Your task to perform on an android device: turn pop-ups on in chrome Image 0: 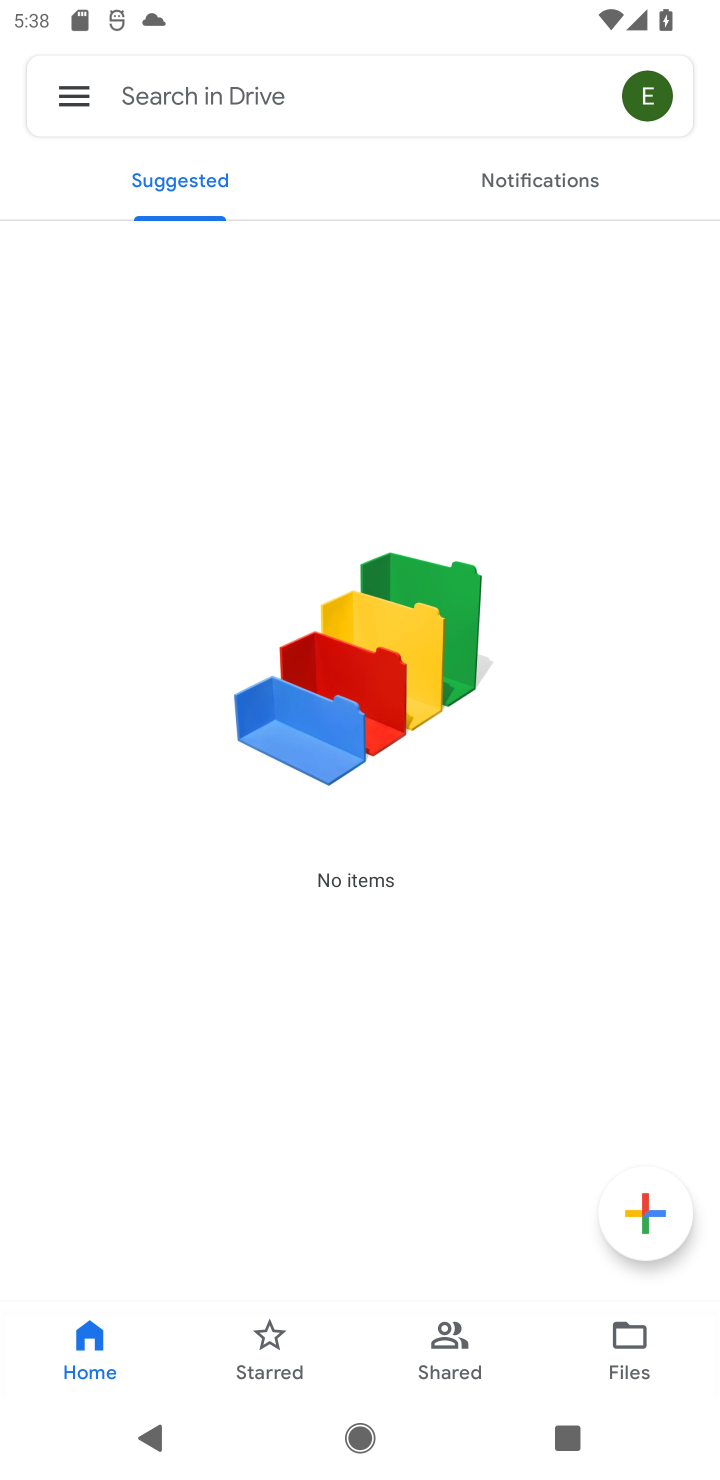
Step 0: press home button
Your task to perform on an android device: turn pop-ups on in chrome Image 1: 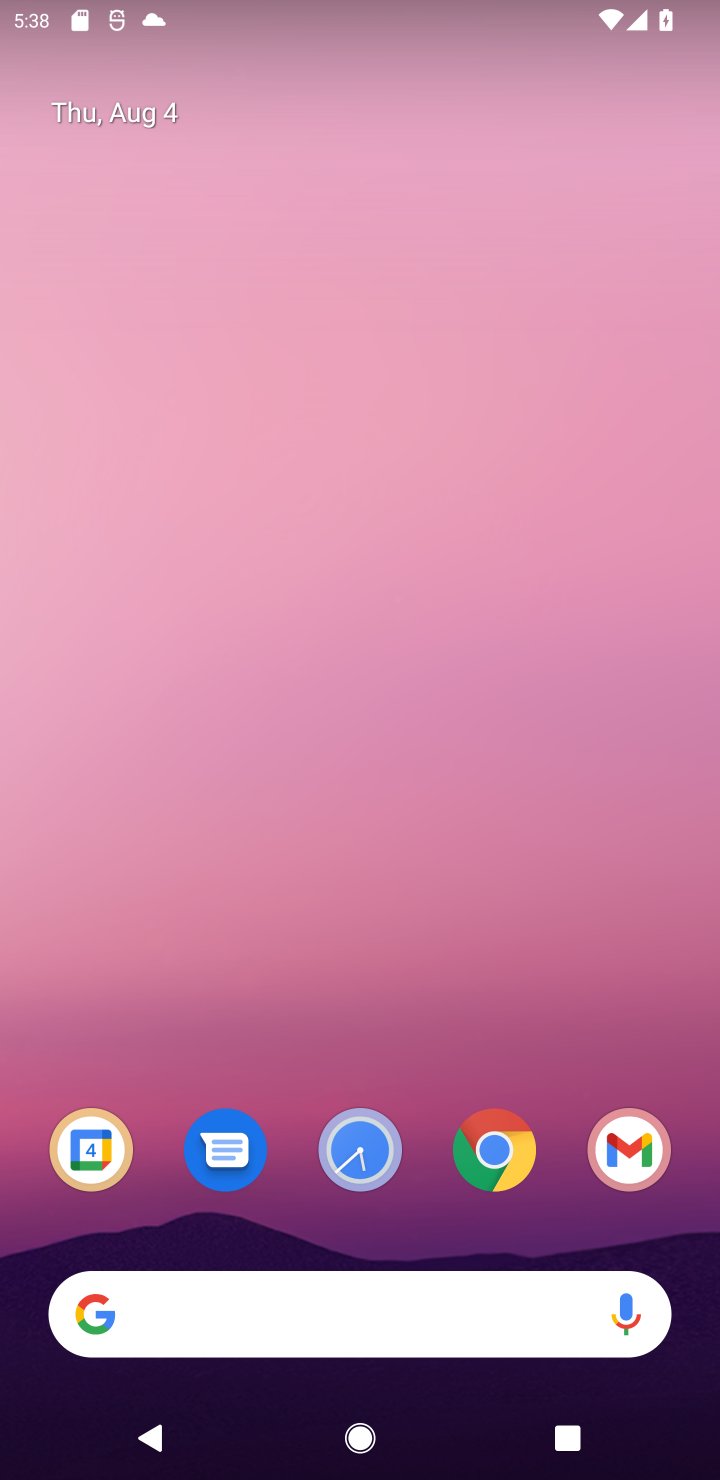
Step 1: drag from (321, 1158) to (374, 3)
Your task to perform on an android device: turn pop-ups on in chrome Image 2: 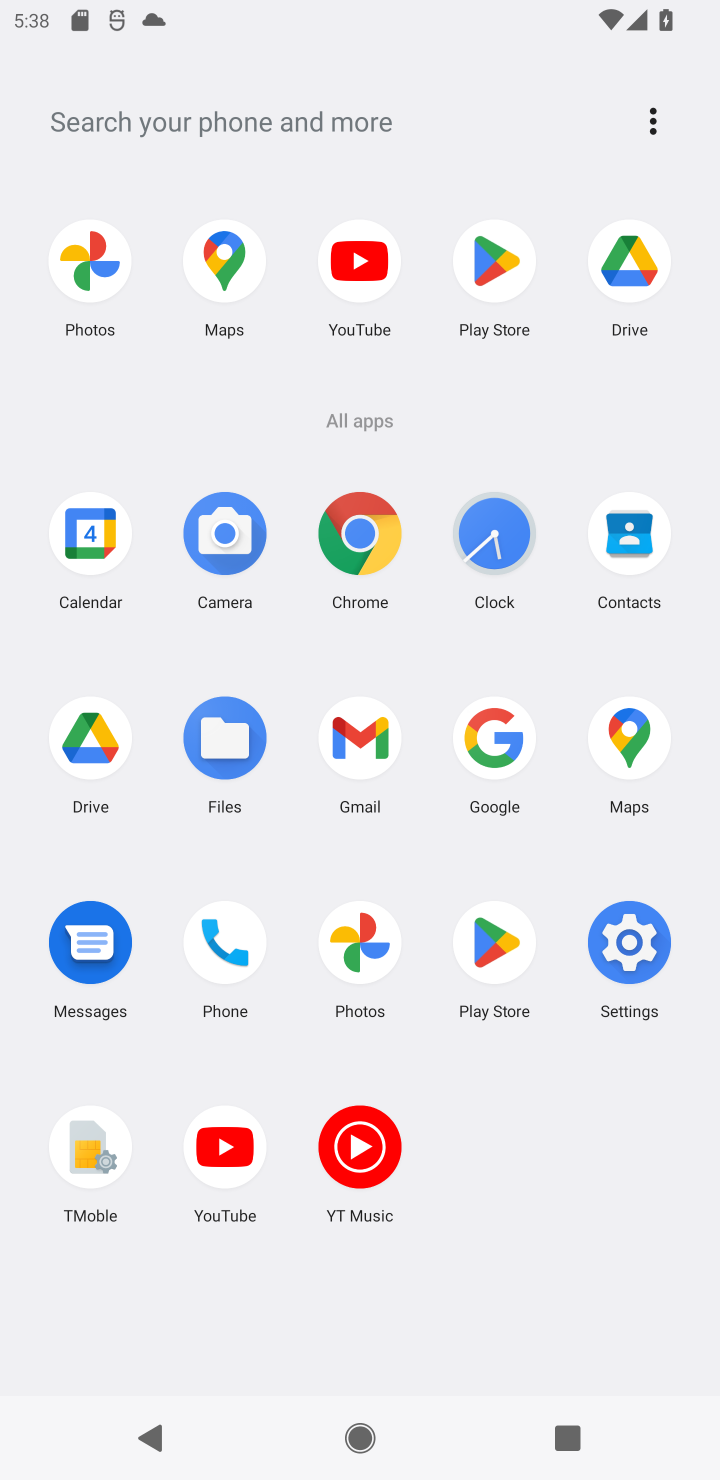
Step 2: click (354, 532)
Your task to perform on an android device: turn pop-ups on in chrome Image 3: 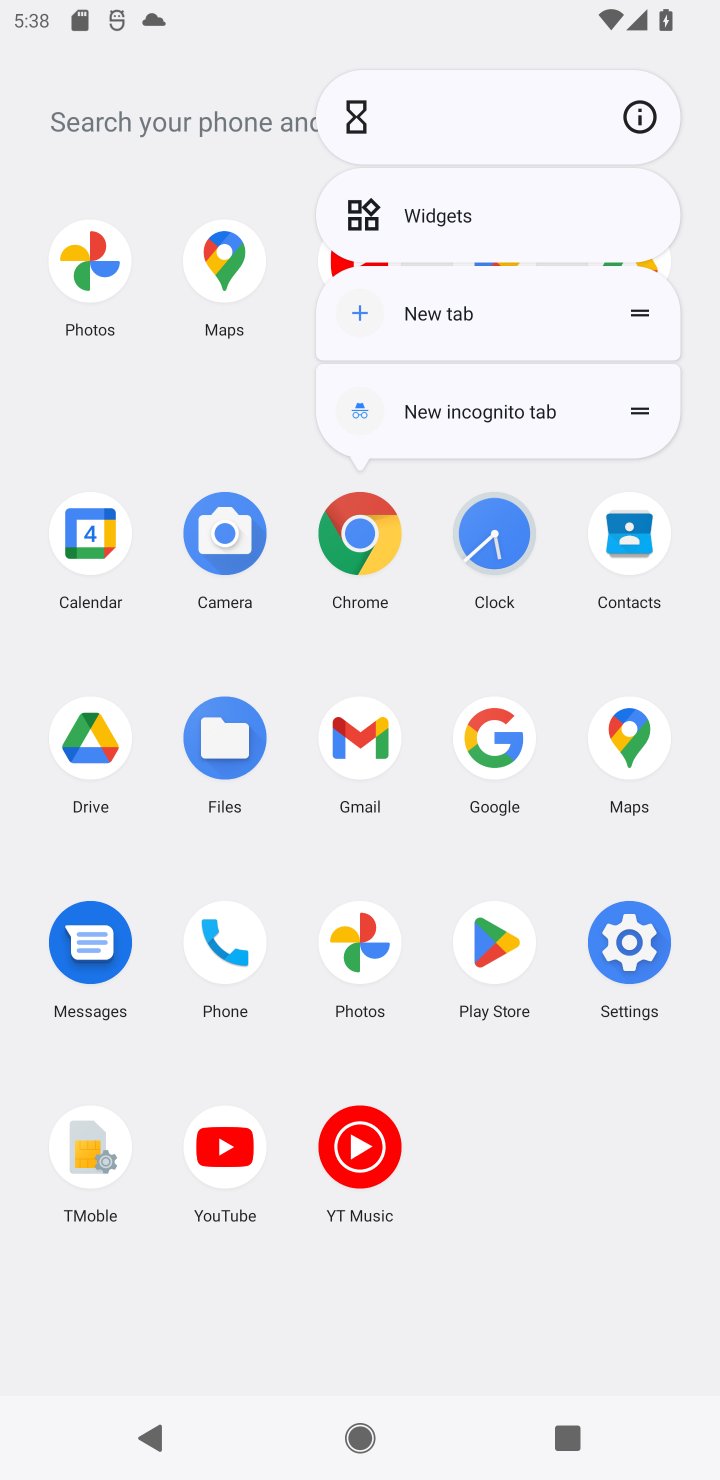
Step 3: click (363, 572)
Your task to perform on an android device: turn pop-ups on in chrome Image 4: 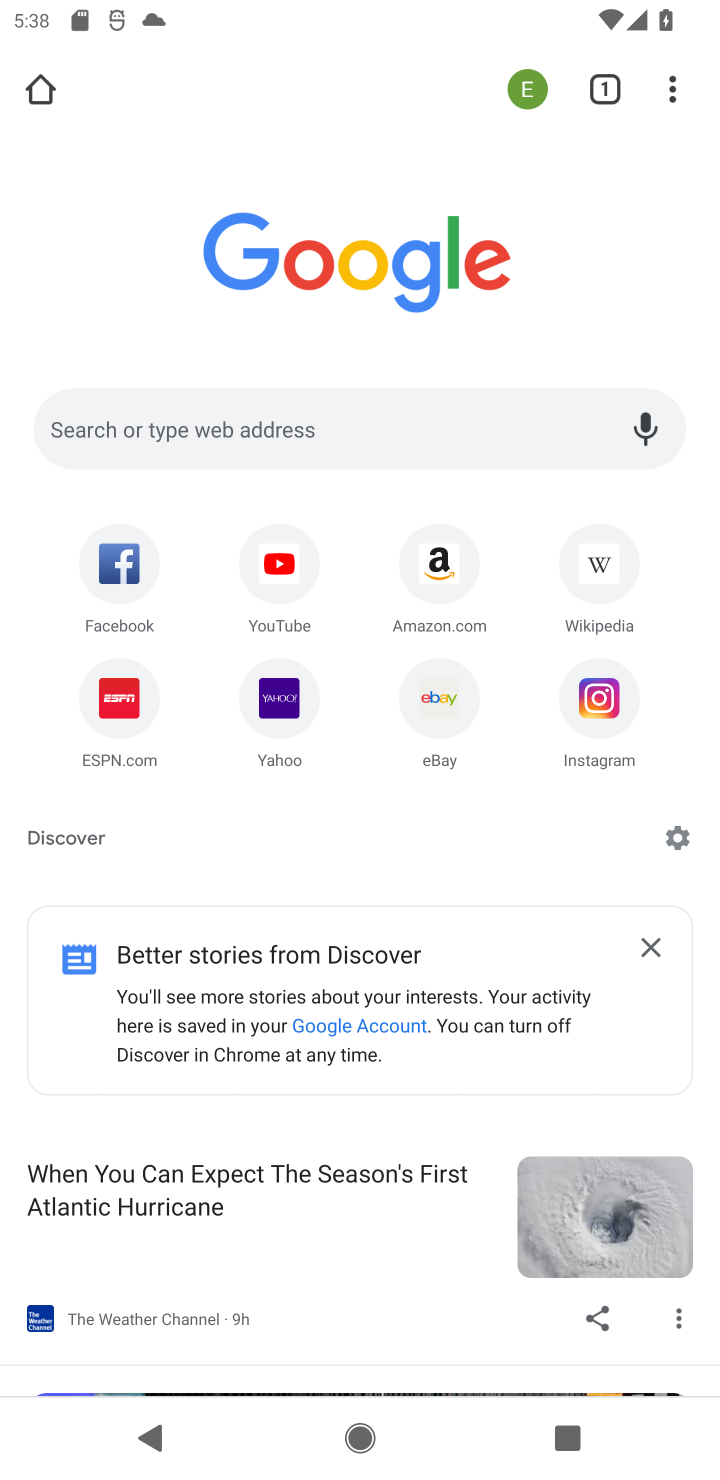
Step 4: click (674, 93)
Your task to perform on an android device: turn pop-ups on in chrome Image 5: 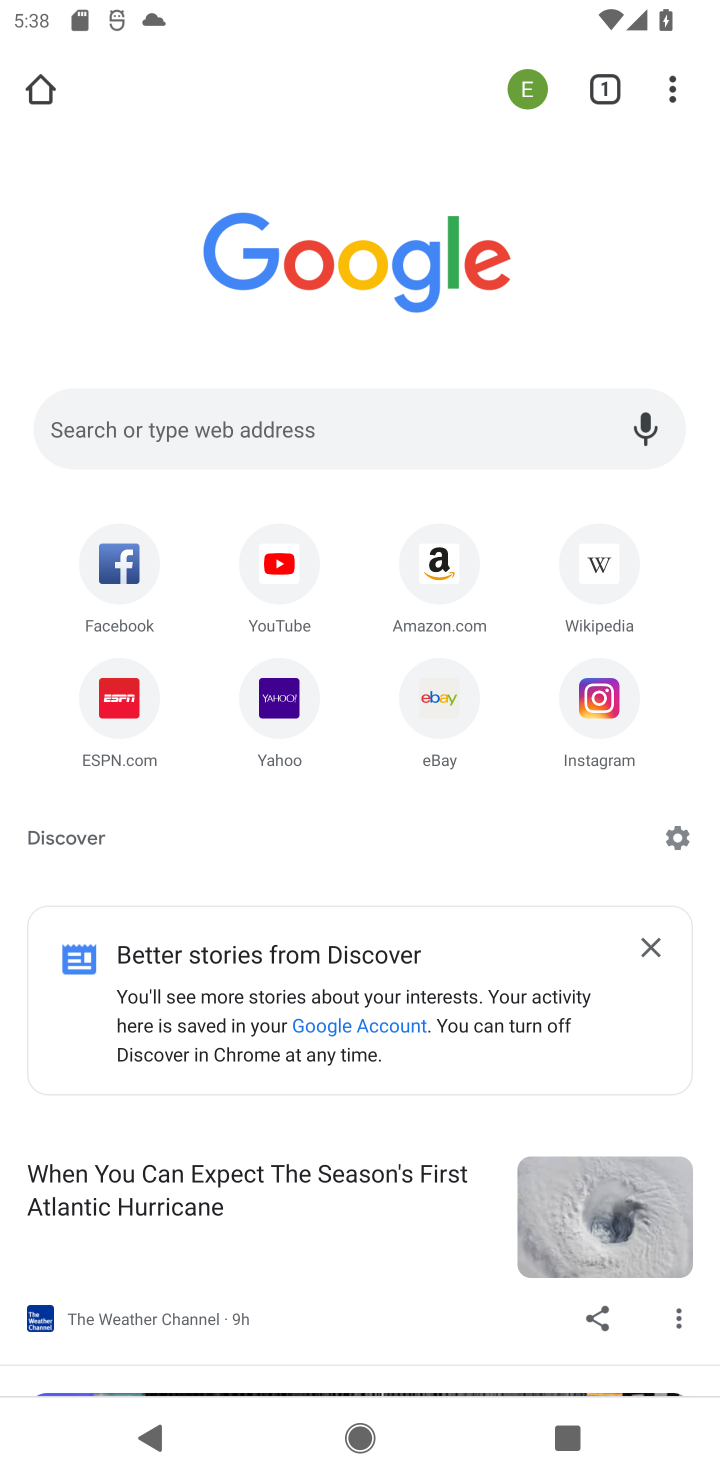
Step 5: click (673, 66)
Your task to perform on an android device: turn pop-ups on in chrome Image 6: 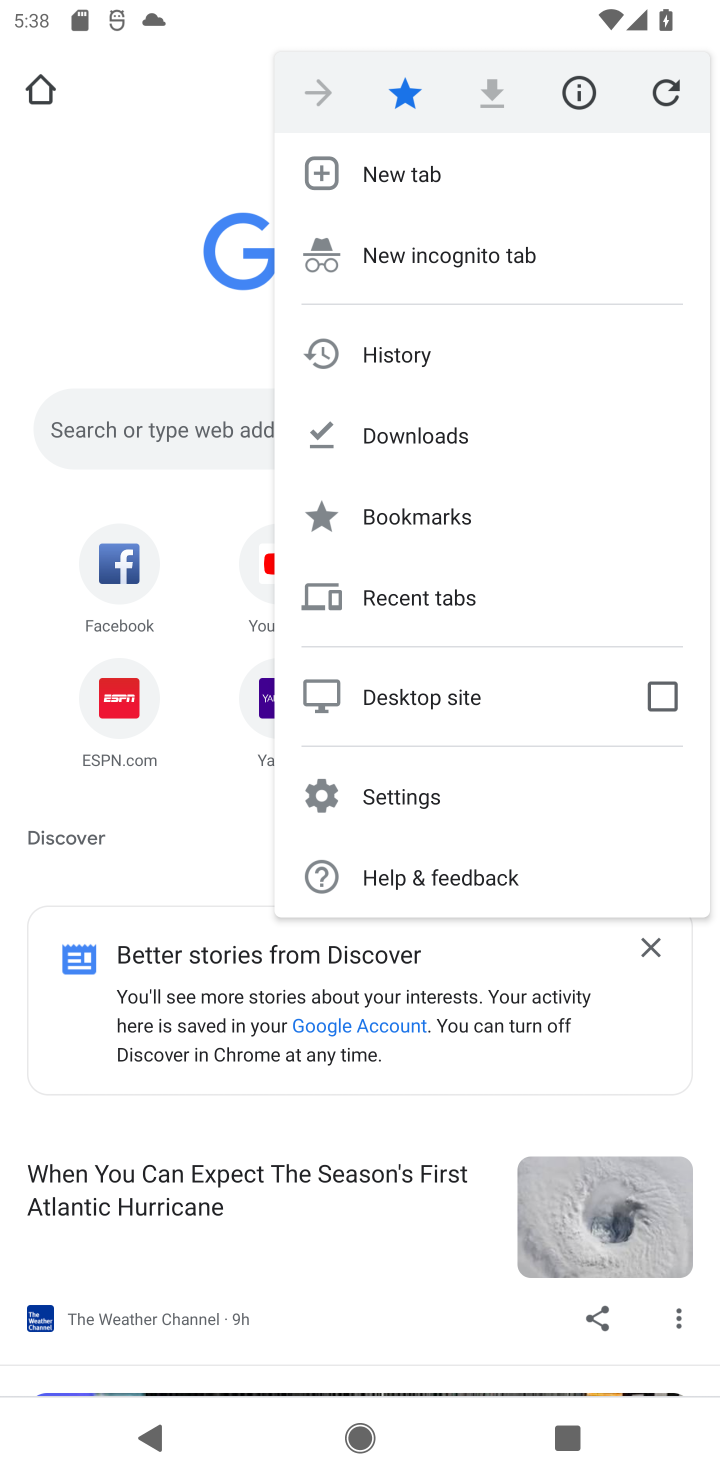
Step 6: click (406, 798)
Your task to perform on an android device: turn pop-ups on in chrome Image 7: 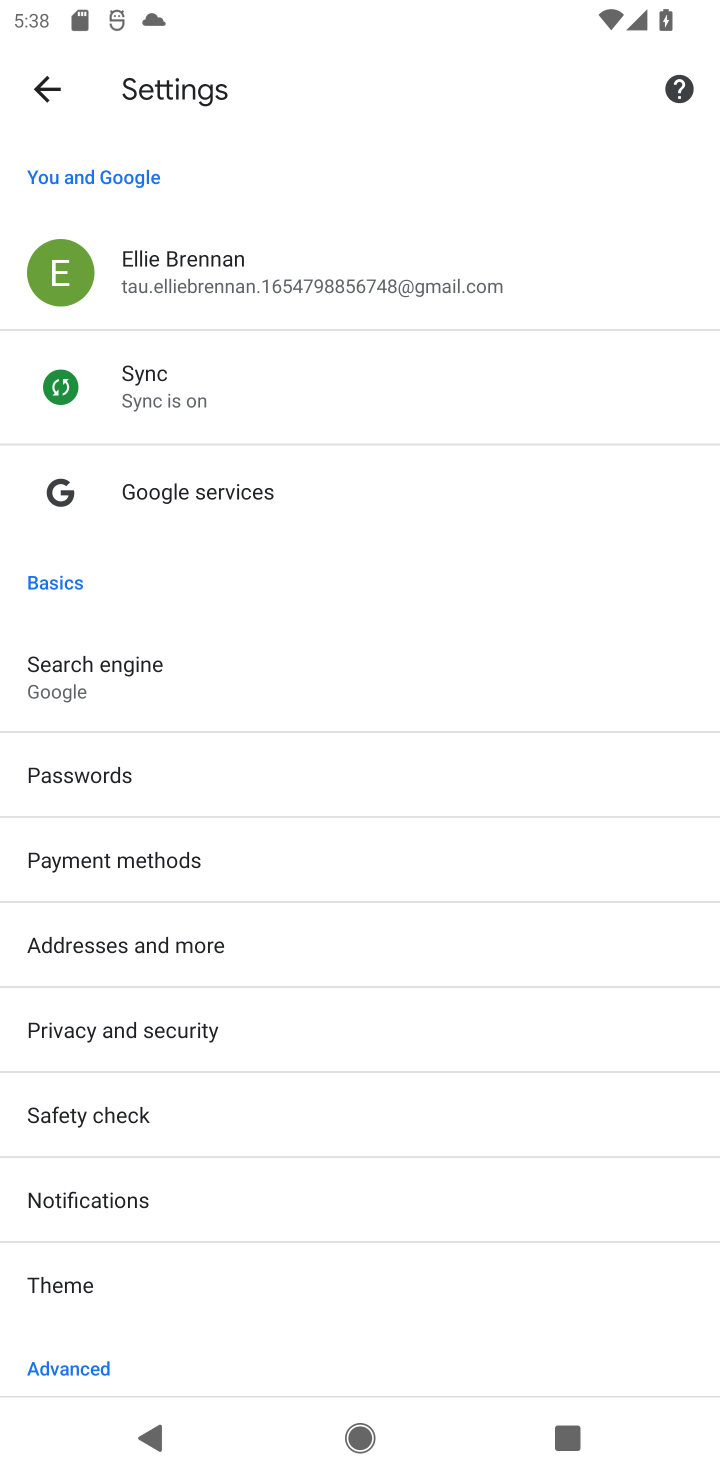
Step 7: drag from (195, 1178) to (229, 527)
Your task to perform on an android device: turn pop-ups on in chrome Image 8: 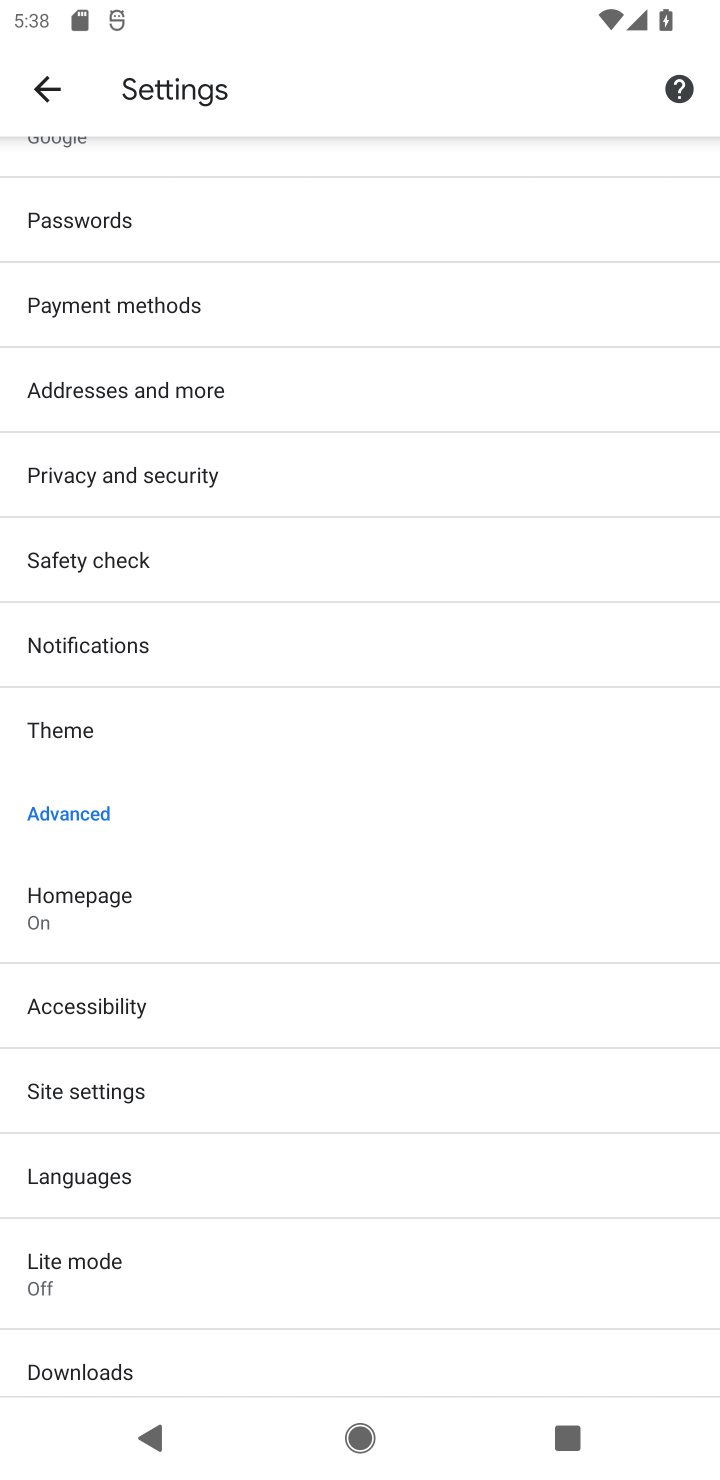
Step 8: click (134, 1092)
Your task to perform on an android device: turn pop-ups on in chrome Image 9: 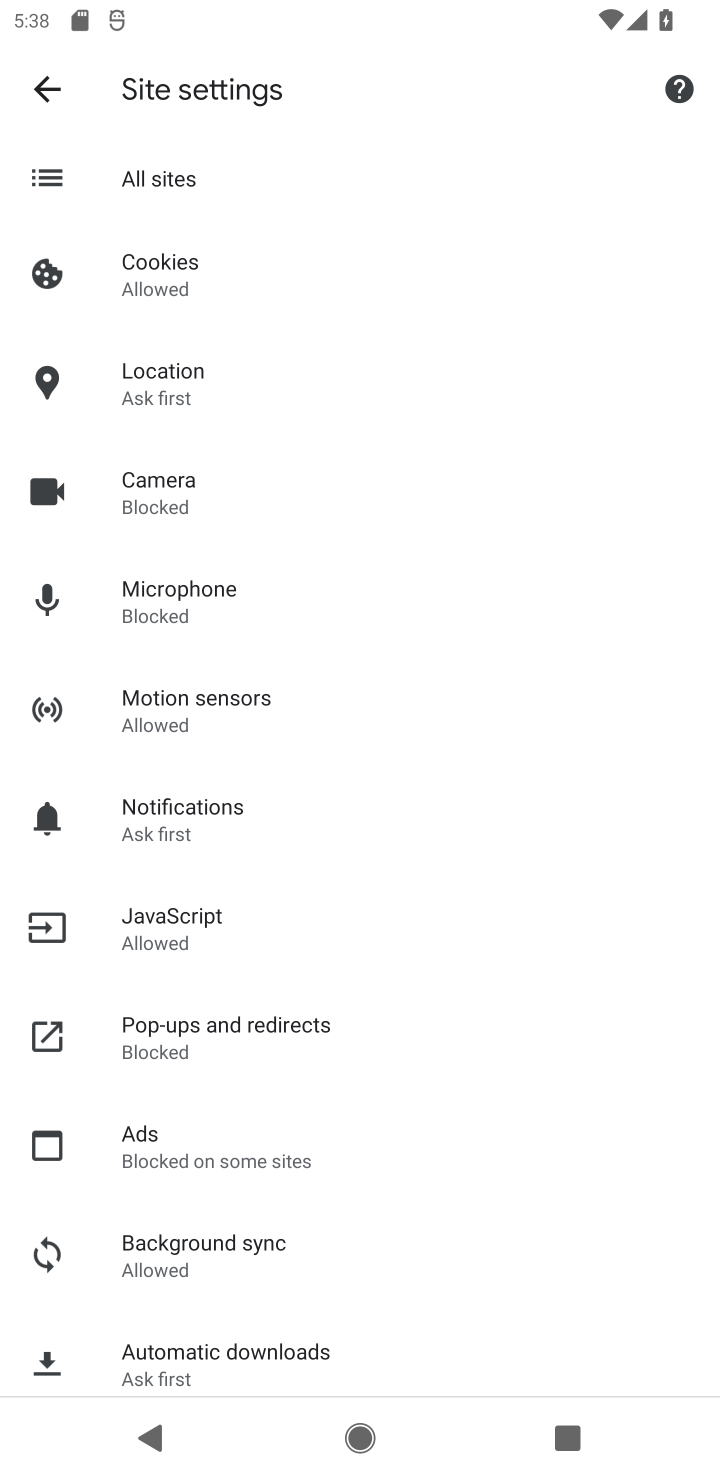
Step 9: click (233, 1045)
Your task to perform on an android device: turn pop-ups on in chrome Image 10: 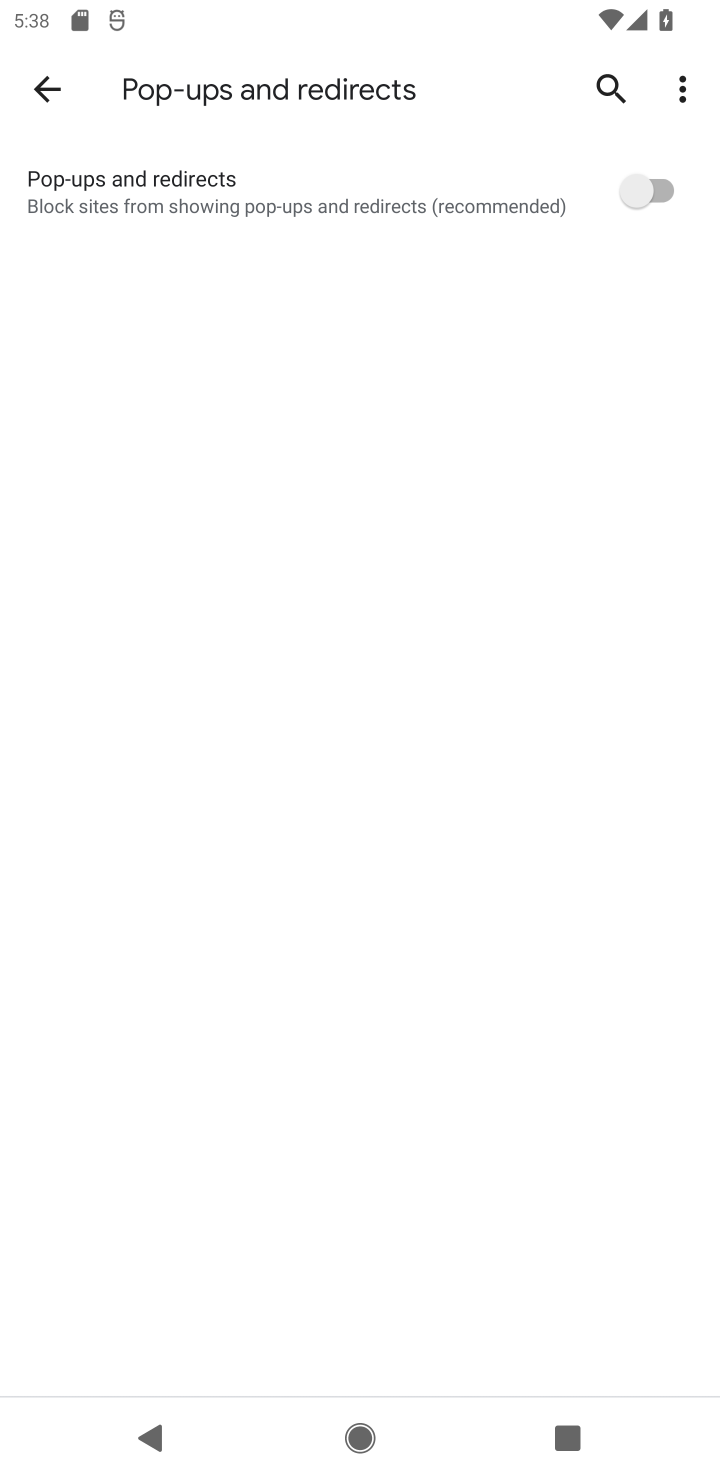
Step 10: click (679, 183)
Your task to perform on an android device: turn pop-ups on in chrome Image 11: 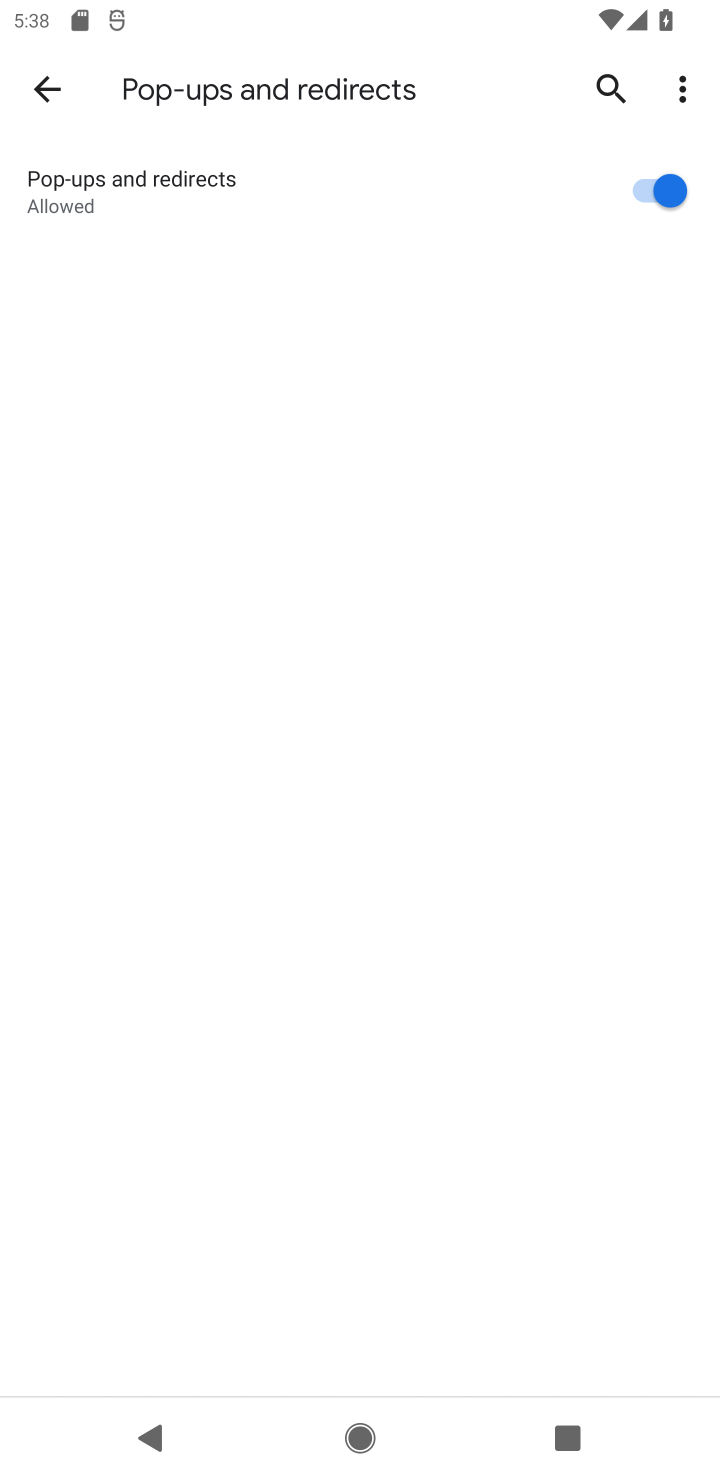
Step 11: task complete